Your task to perform on an android device: Go to privacy settings Image 0: 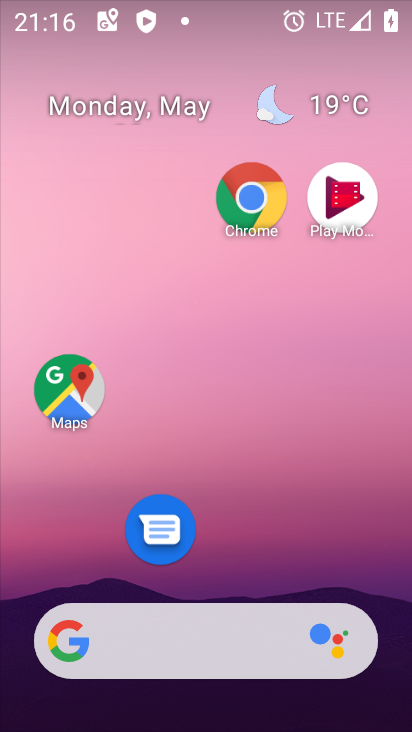
Step 0: drag from (221, 586) to (219, 74)
Your task to perform on an android device: Go to privacy settings Image 1: 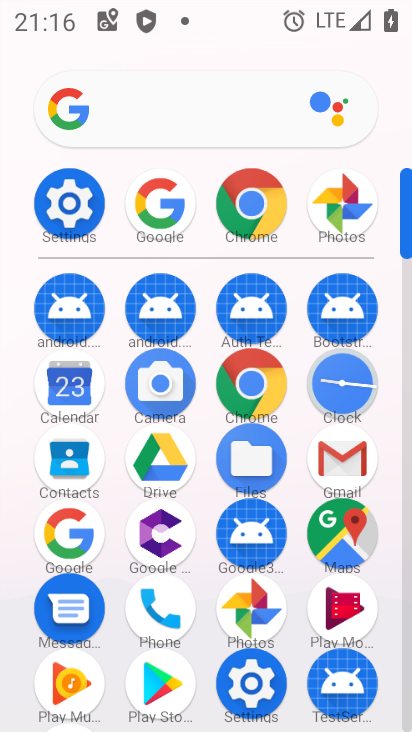
Step 1: click (66, 204)
Your task to perform on an android device: Go to privacy settings Image 2: 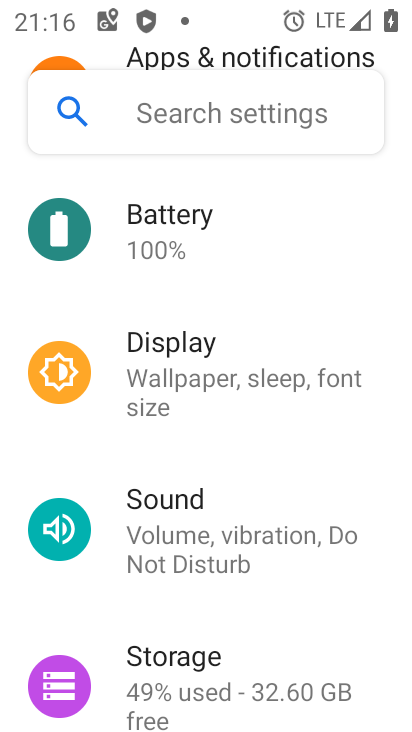
Step 2: drag from (272, 649) to (241, 300)
Your task to perform on an android device: Go to privacy settings Image 3: 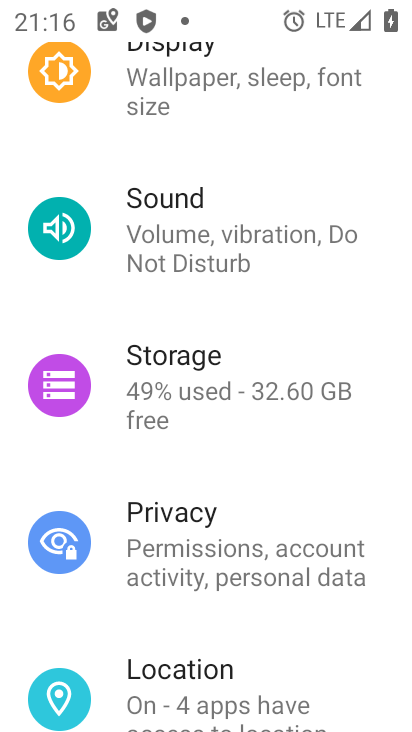
Step 3: click (169, 554)
Your task to perform on an android device: Go to privacy settings Image 4: 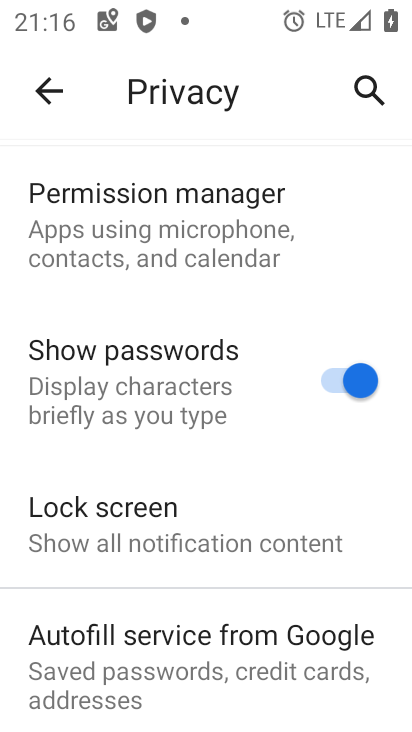
Step 4: task complete